Your task to perform on an android device: Open the Play Movies app and select the watchlist tab. Image 0: 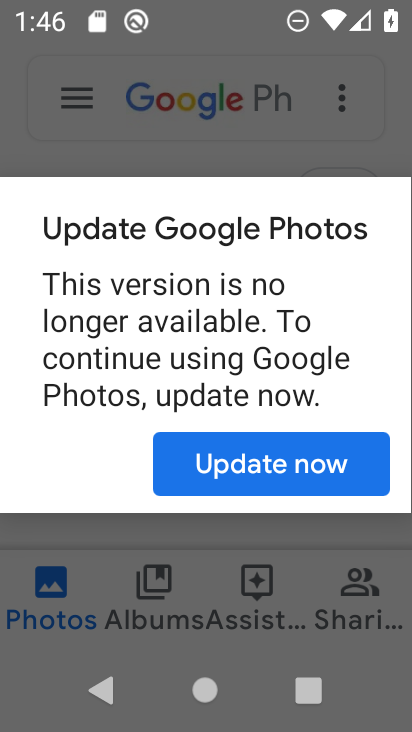
Step 0: press home button
Your task to perform on an android device: Open the Play Movies app and select the watchlist tab. Image 1: 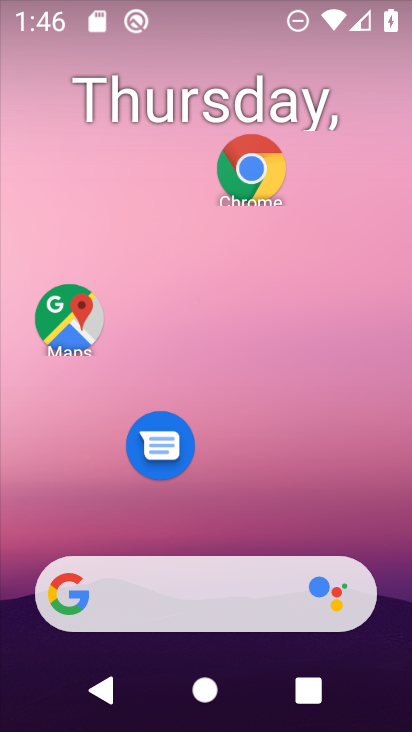
Step 1: drag from (302, 618) to (241, 238)
Your task to perform on an android device: Open the Play Movies app and select the watchlist tab. Image 2: 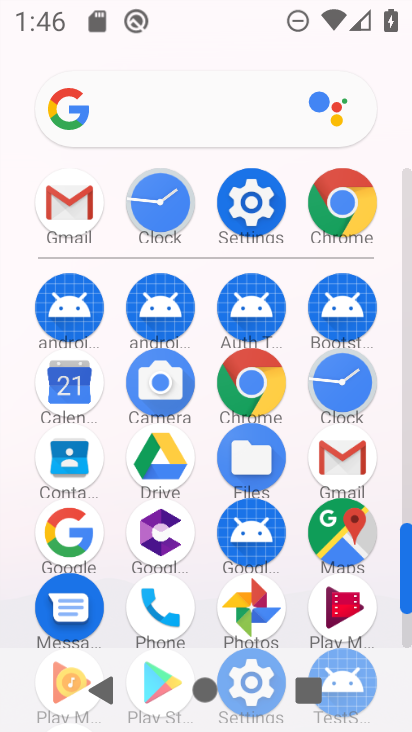
Step 2: click (353, 609)
Your task to perform on an android device: Open the Play Movies app and select the watchlist tab. Image 3: 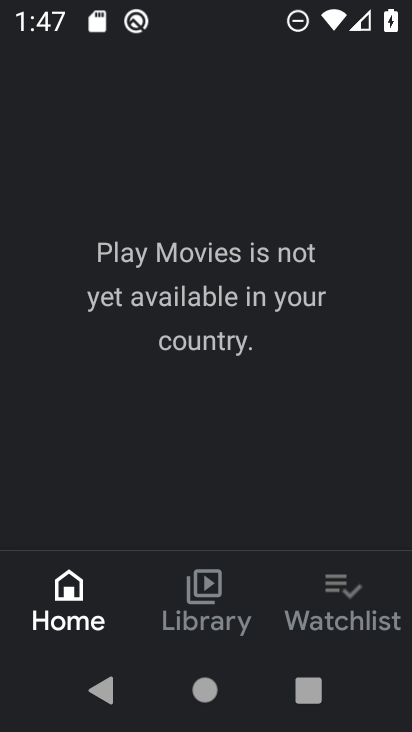
Step 3: task complete